Your task to perform on an android device: toggle location history Image 0: 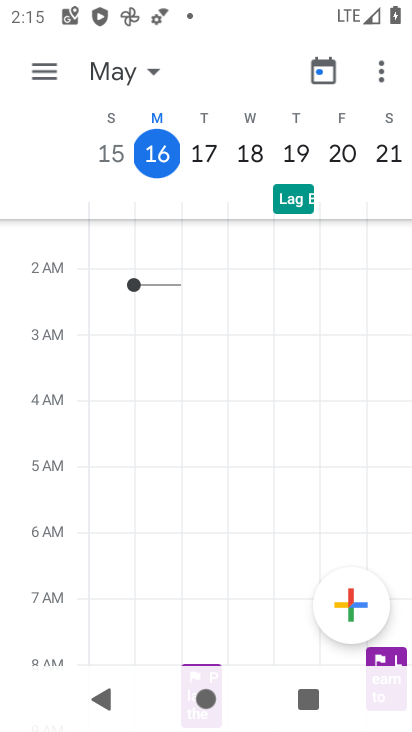
Step 0: press home button
Your task to perform on an android device: toggle location history Image 1: 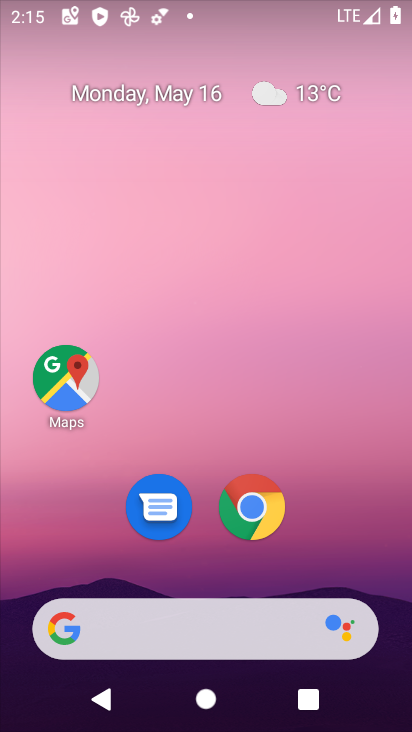
Step 1: drag from (328, 516) to (243, 37)
Your task to perform on an android device: toggle location history Image 2: 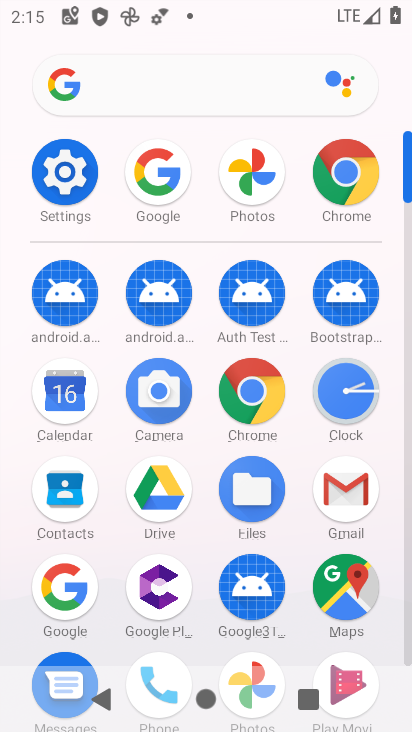
Step 2: click (60, 176)
Your task to perform on an android device: toggle location history Image 3: 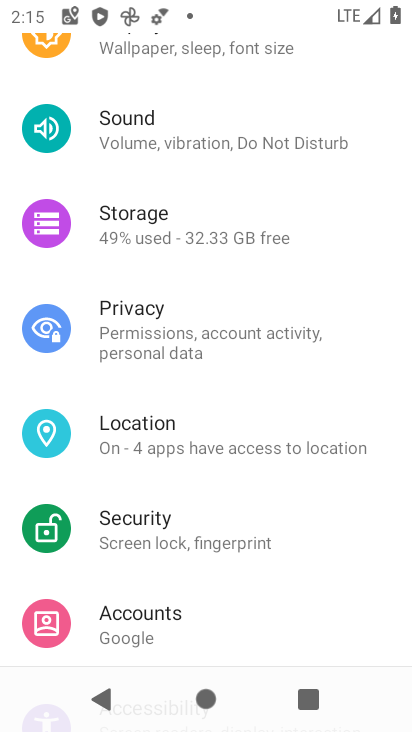
Step 3: click (175, 429)
Your task to perform on an android device: toggle location history Image 4: 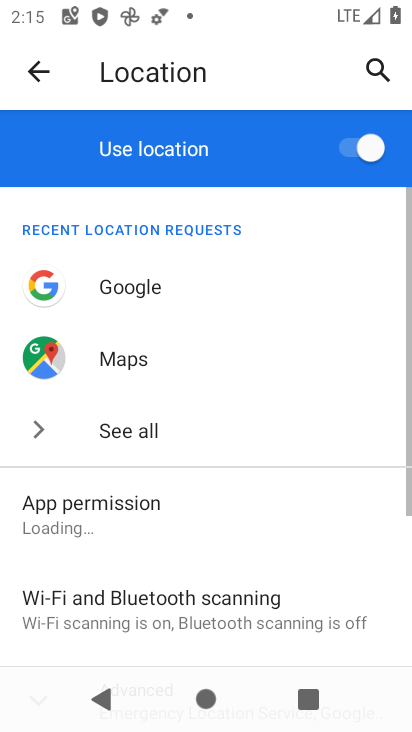
Step 4: drag from (237, 510) to (181, 58)
Your task to perform on an android device: toggle location history Image 5: 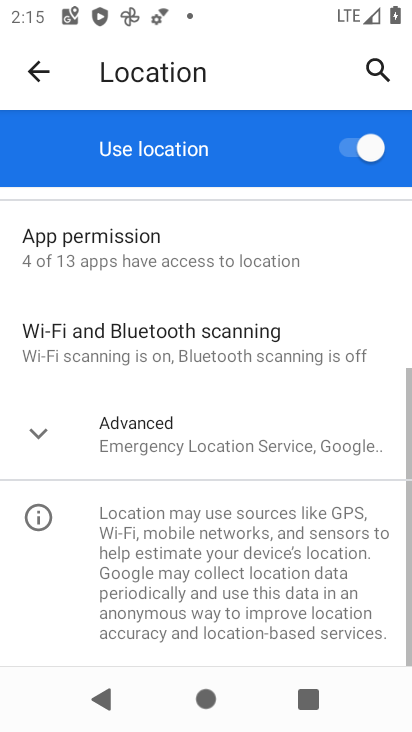
Step 5: click (177, 422)
Your task to perform on an android device: toggle location history Image 6: 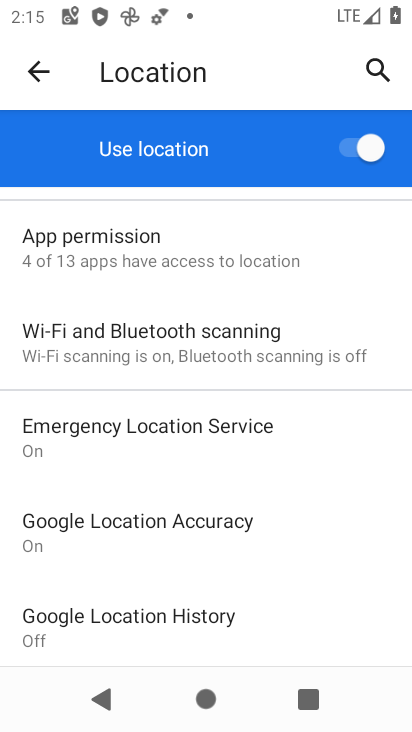
Step 6: click (174, 619)
Your task to perform on an android device: toggle location history Image 7: 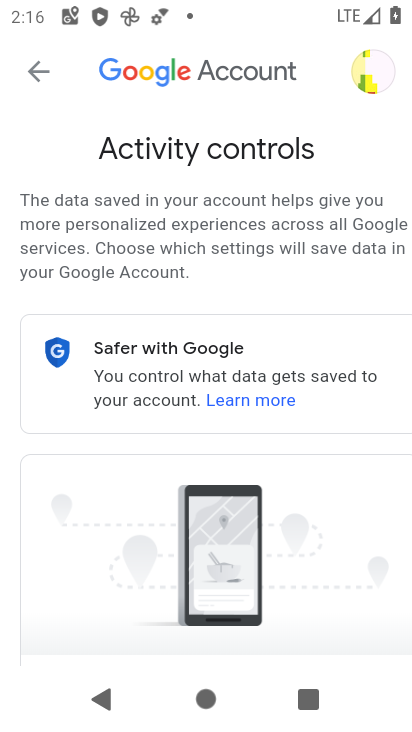
Step 7: drag from (141, 554) to (197, 79)
Your task to perform on an android device: toggle location history Image 8: 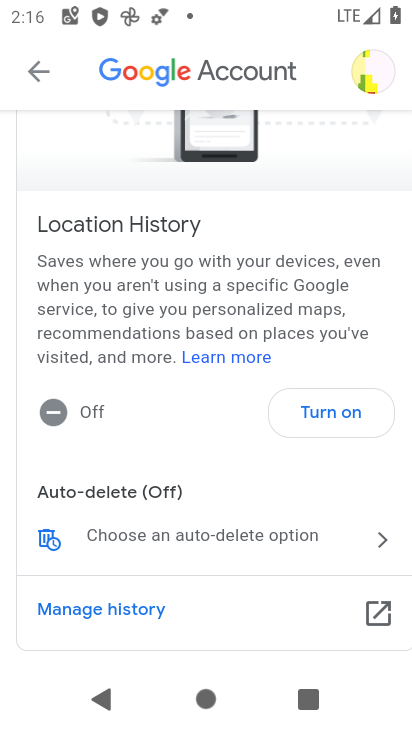
Step 8: click (339, 410)
Your task to perform on an android device: toggle location history Image 9: 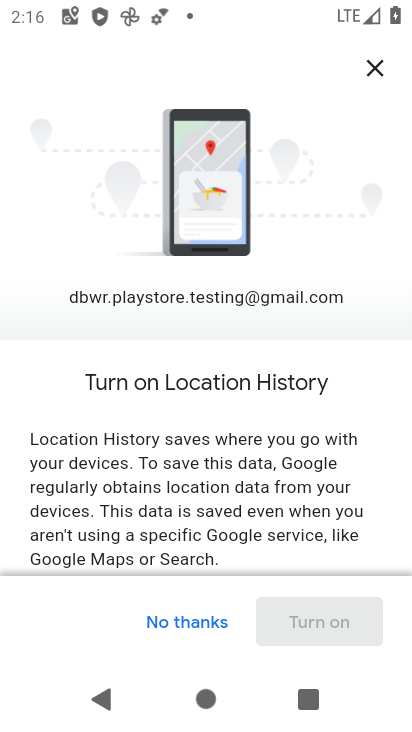
Step 9: drag from (212, 547) to (184, 109)
Your task to perform on an android device: toggle location history Image 10: 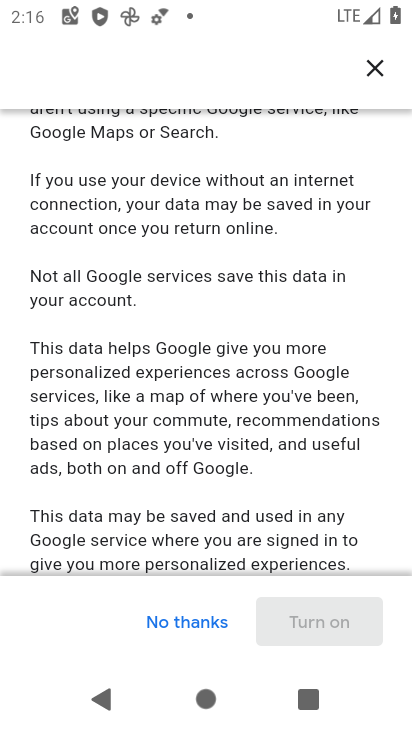
Step 10: drag from (182, 356) to (176, 102)
Your task to perform on an android device: toggle location history Image 11: 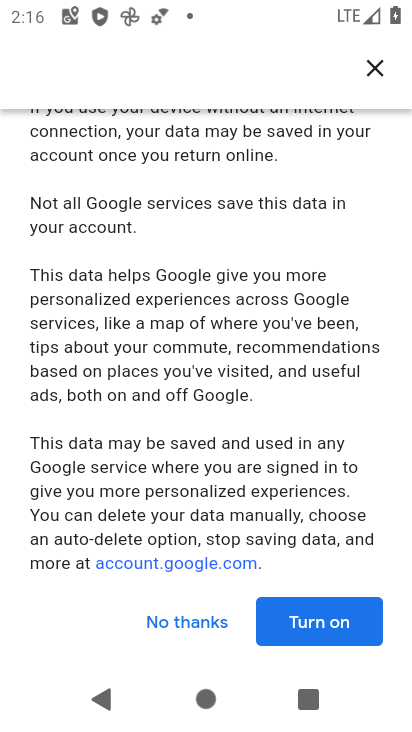
Step 11: click (304, 621)
Your task to perform on an android device: toggle location history Image 12: 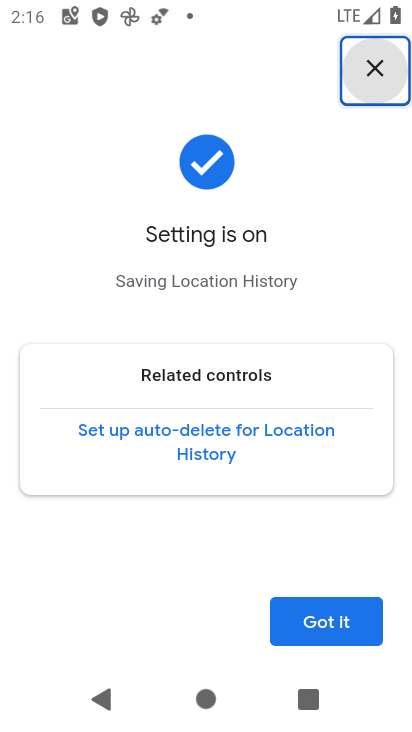
Step 12: click (325, 631)
Your task to perform on an android device: toggle location history Image 13: 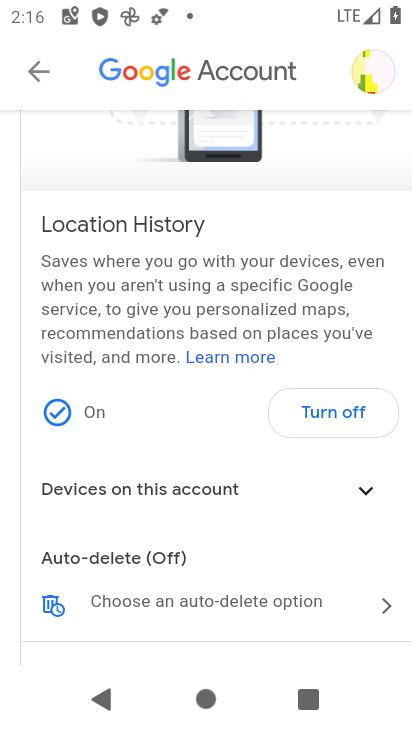
Step 13: task complete